Your task to perform on an android device: turn on javascript in the chrome app Image 0: 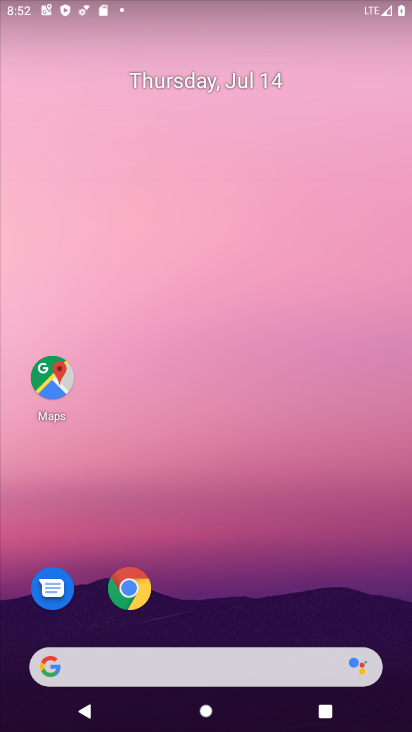
Step 0: drag from (401, 643) to (217, 47)
Your task to perform on an android device: turn on javascript in the chrome app Image 1: 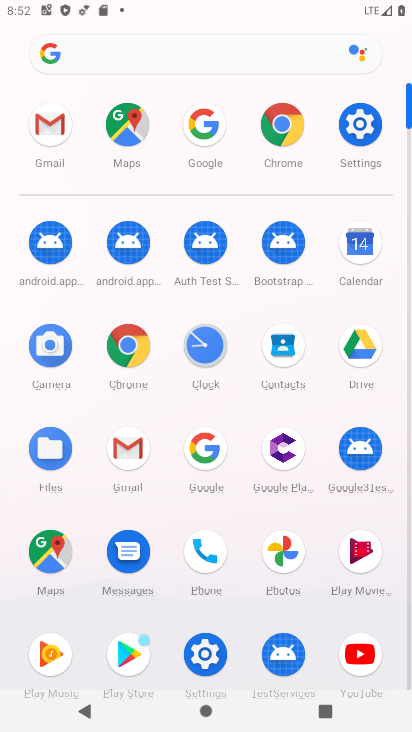
Step 1: click (268, 125)
Your task to perform on an android device: turn on javascript in the chrome app Image 2: 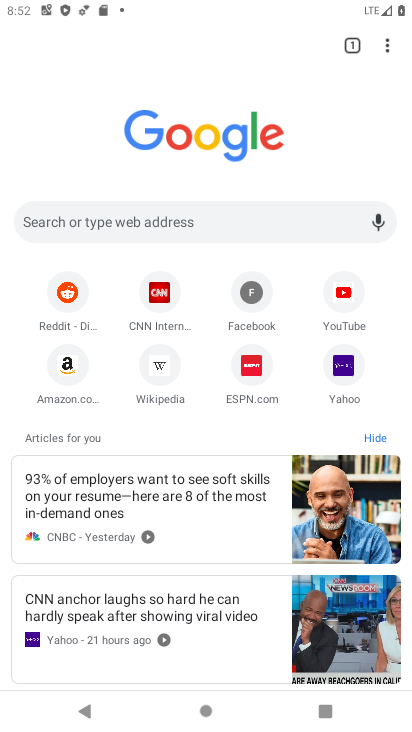
Step 2: click (379, 44)
Your task to perform on an android device: turn on javascript in the chrome app Image 3: 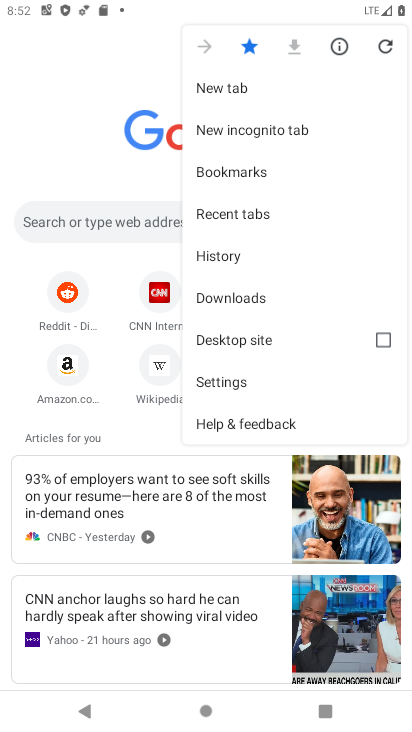
Step 3: click (240, 375)
Your task to perform on an android device: turn on javascript in the chrome app Image 4: 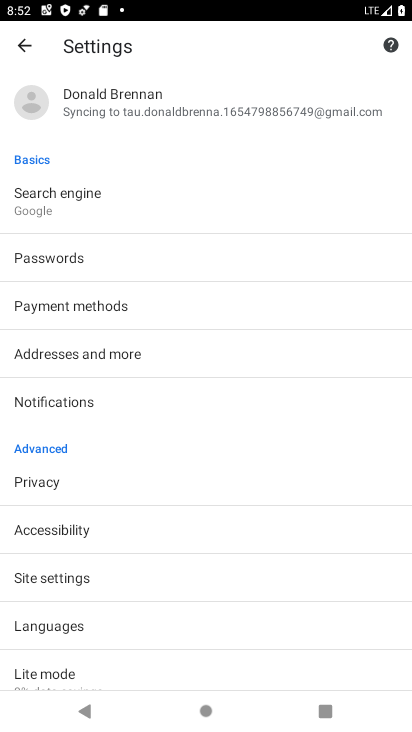
Step 4: click (69, 579)
Your task to perform on an android device: turn on javascript in the chrome app Image 5: 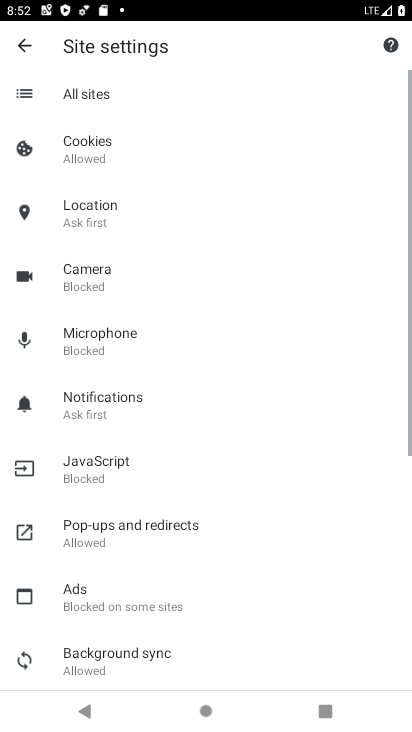
Step 5: click (91, 479)
Your task to perform on an android device: turn on javascript in the chrome app Image 6: 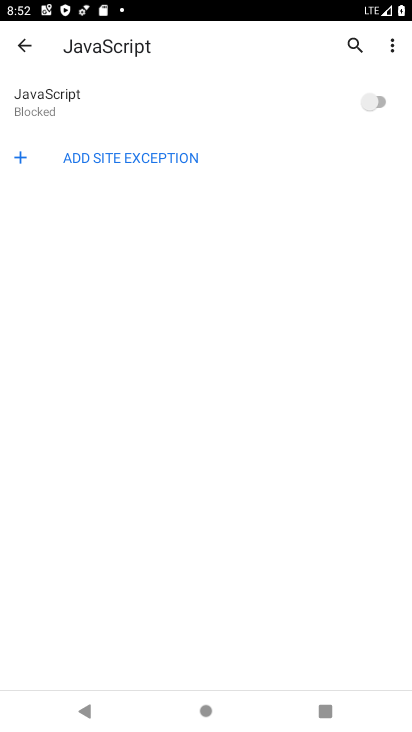
Step 6: click (372, 96)
Your task to perform on an android device: turn on javascript in the chrome app Image 7: 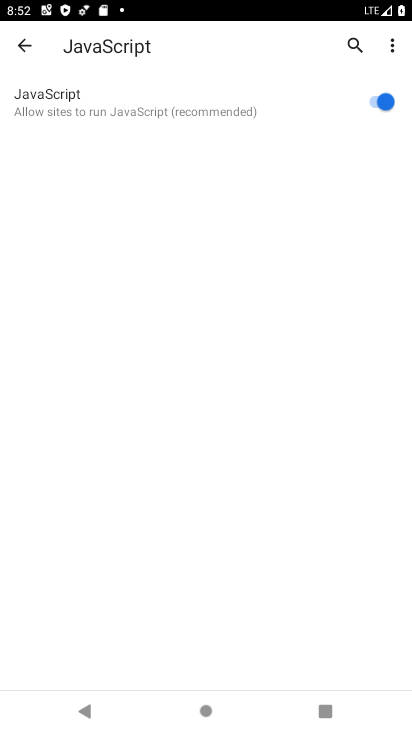
Step 7: task complete